Your task to perform on an android device: change the clock display to analog Image 0: 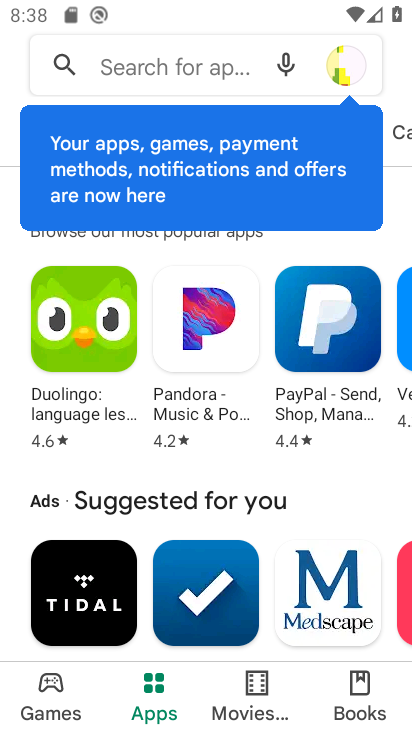
Step 0: press home button
Your task to perform on an android device: change the clock display to analog Image 1: 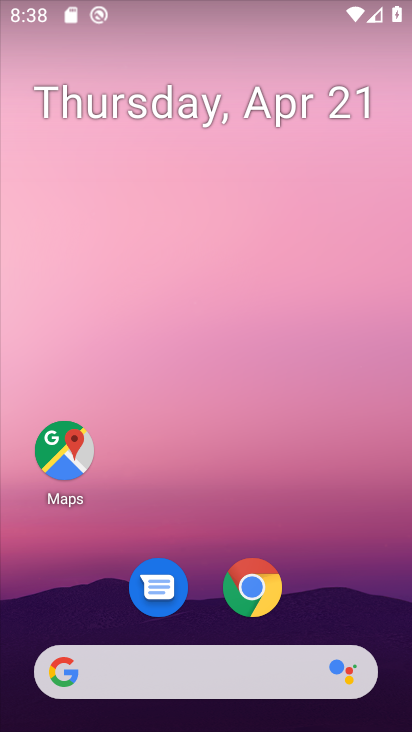
Step 1: click (393, 144)
Your task to perform on an android device: change the clock display to analog Image 2: 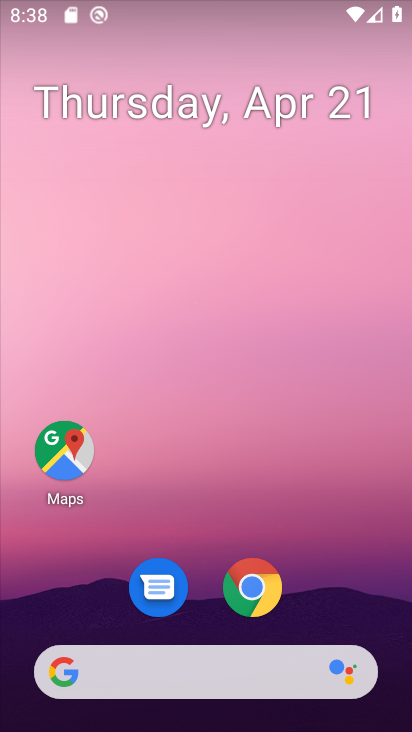
Step 2: click (338, 241)
Your task to perform on an android device: change the clock display to analog Image 3: 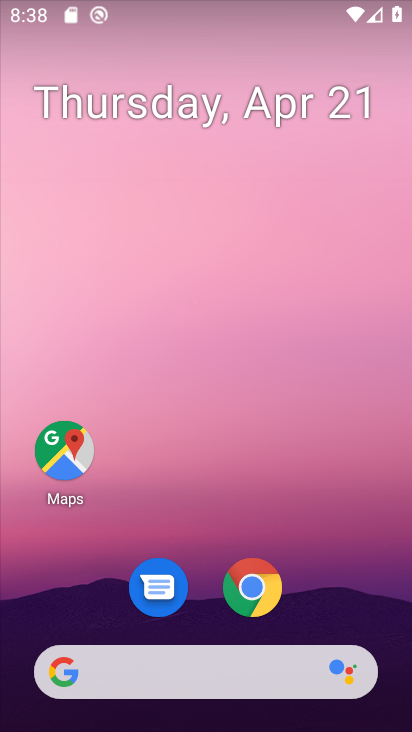
Step 3: click (375, 237)
Your task to perform on an android device: change the clock display to analog Image 4: 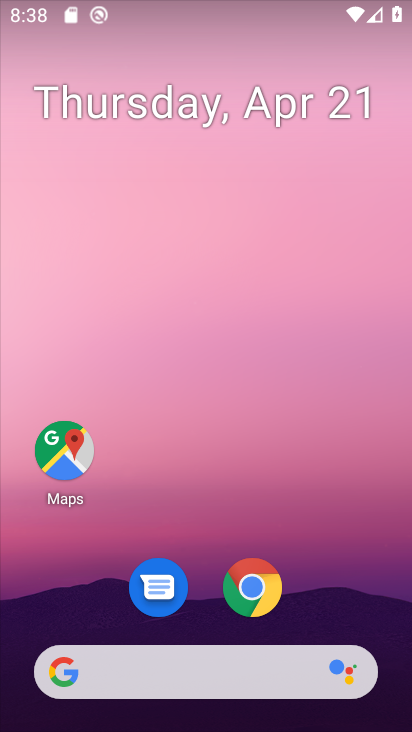
Step 4: drag from (377, 598) to (386, 119)
Your task to perform on an android device: change the clock display to analog Image 5: 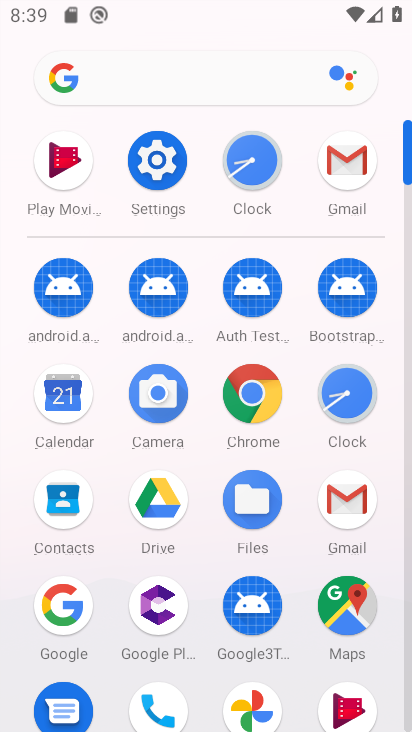
Step 5: click (359, 379)
Your task to perform on an android device: change the clock display to analog Image 6: 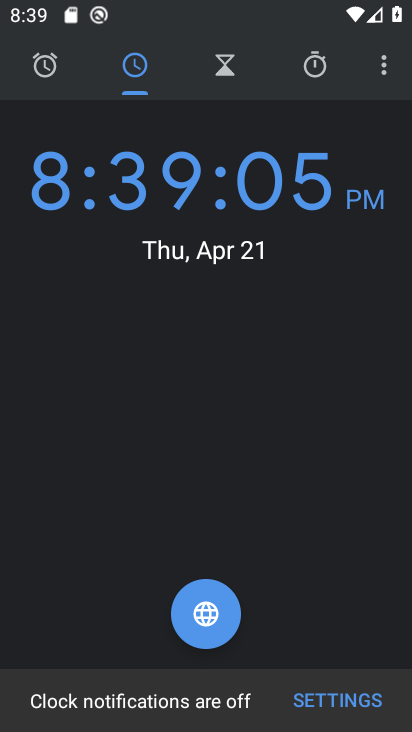
Step 6: click (386, 64)
Your task to perform on an android device: change the clock display to analog Image 7: 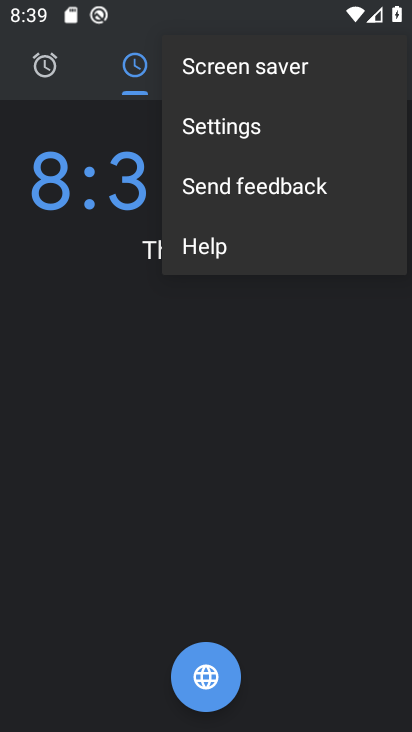
Step 7: click (211, 120)
Your task to perform on an android device: change the clock display to analog Image 8: 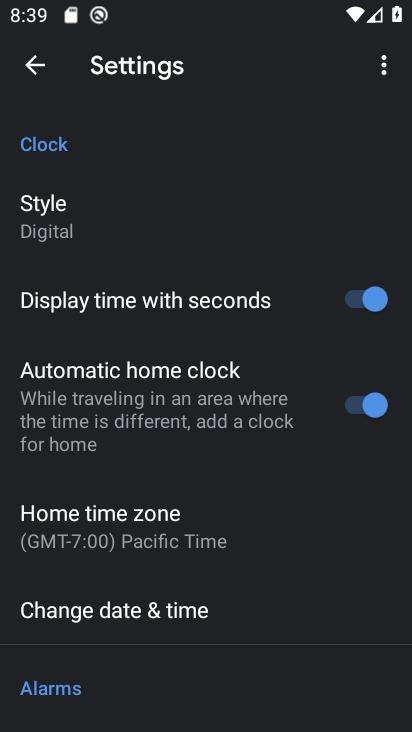
Step 8: click (31, 208)
Your task to perform on an android device: change the clock display to analog Image 9: 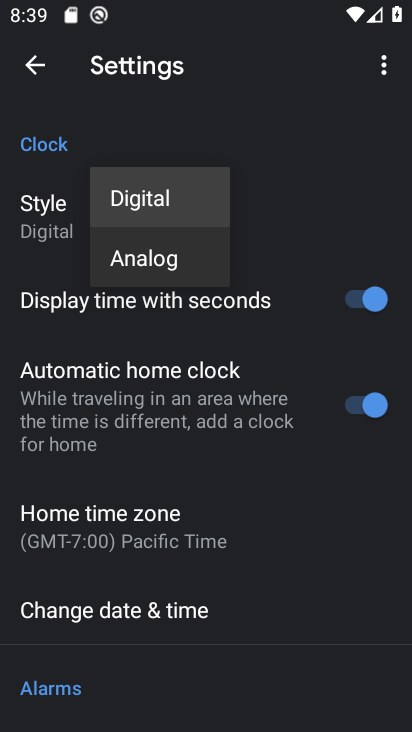
Step 9: click (139, 191)
Your task to perform on an android device: change the clock display to analog Image 10: 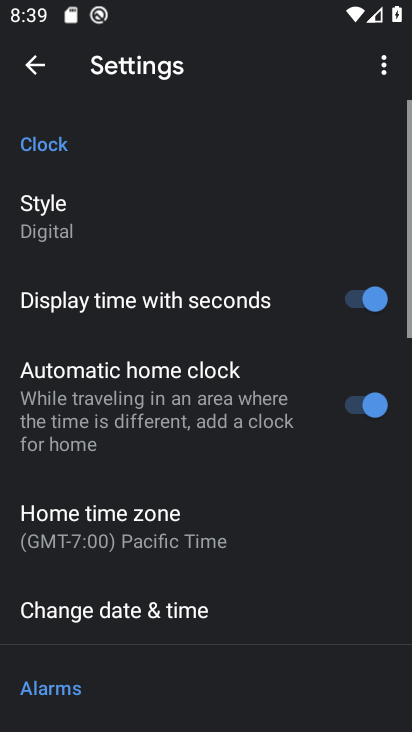
Step 10: click (59, 218)
Your task to perform on an android device: change the clock display to analog Image 11: 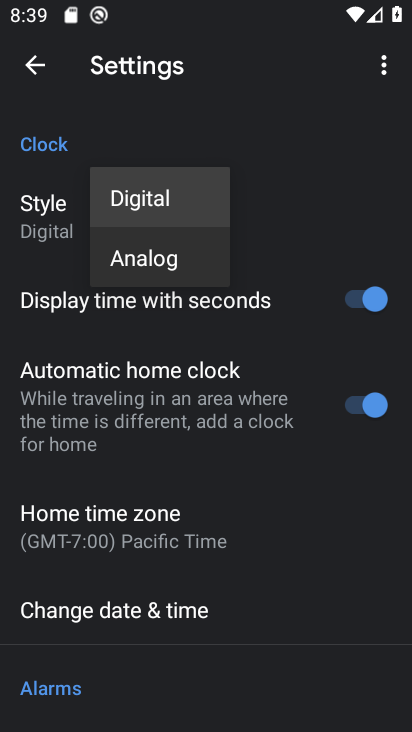
Step 11: click (146, 261)
Your task to perform on an android device: change the clock display to analog Image 12: 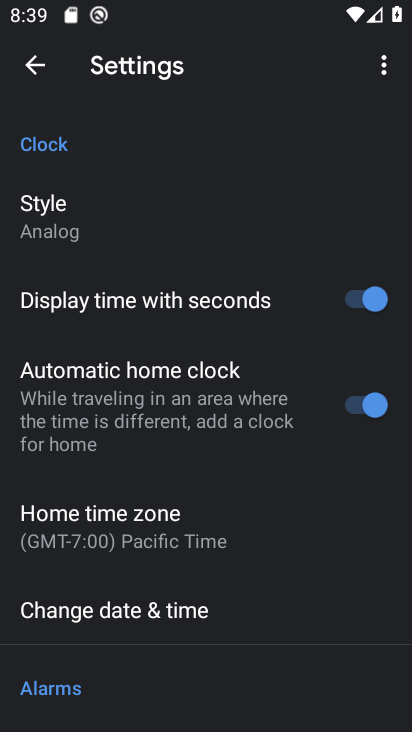
Step 12: task complete